Your task to perform on an android device: set default search engine in the chrome app Image 0: 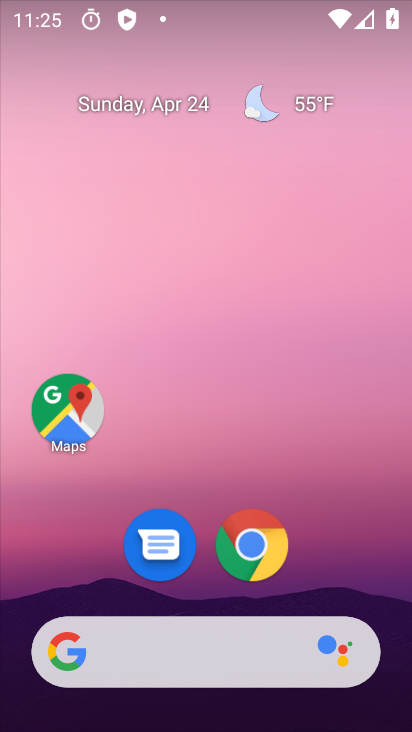
Step 0: drag from (312, 591) to (254, 202)
Your task to perform on an android device: set default search engine in the chrome app Image 1: 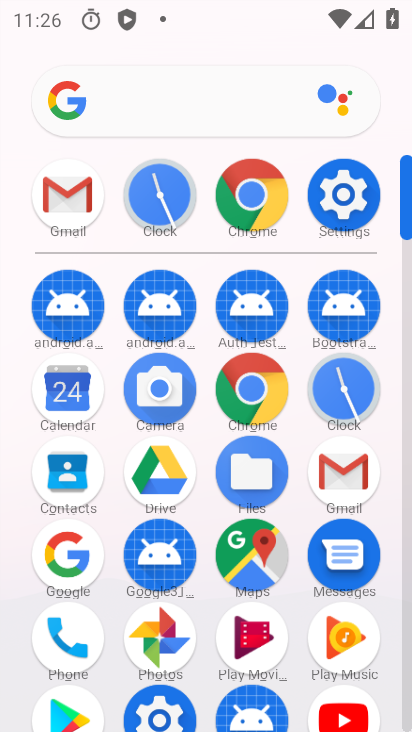
Step 1: click (255, 194)
Your task to perform on an android device: set default search engine in the chrome app Image 2: 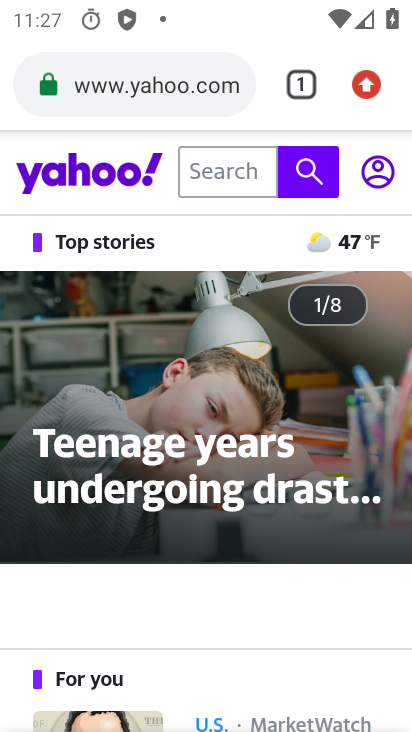
Step 2: click (366, 75)
Your task to perform on an android device: set default search engine in the chrome app Image 3: 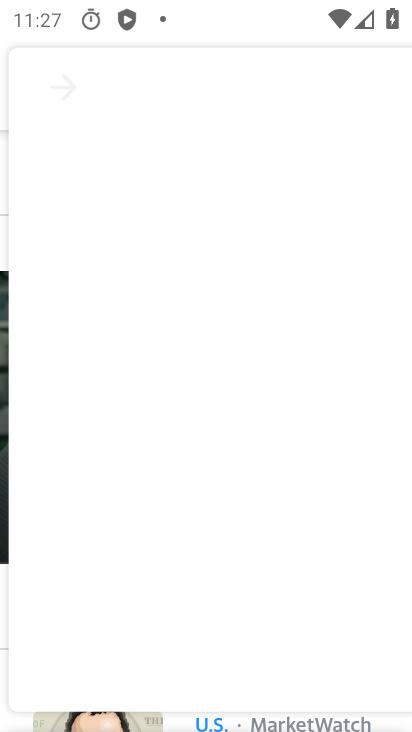
Step 3: click (367, 86)
Your task to perform on an android device: set default search engine in the chrome app Image 4: 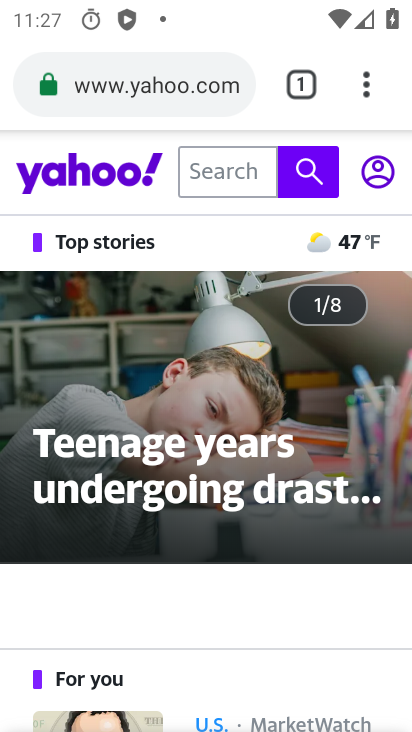
Step 4: click (363, 87)
Your task to perform on an android device: set default search engine in the chrome app Image 5: 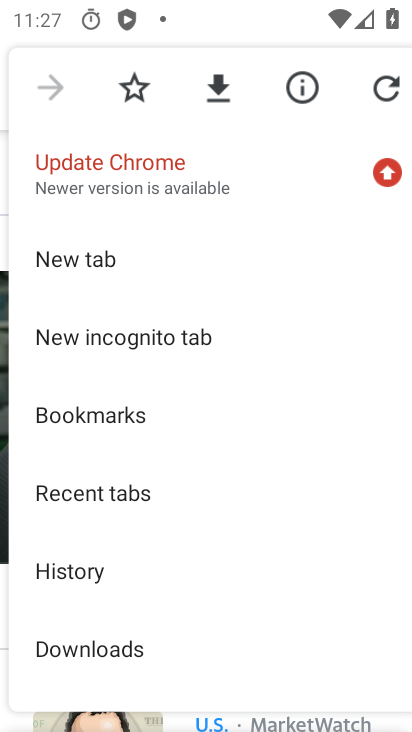
Step 5: drag from (146, 605) to (276, 346)
Your task to perform on an android device: set default search engine in the chrome app Image 6: 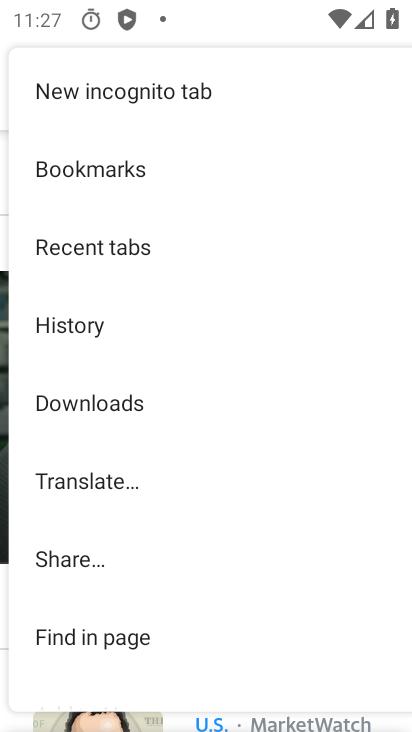
Step 6: drag from (168, 543) to (186, 391)
Your task to perform on an android device: set default search engine in the chrome app Image 7: 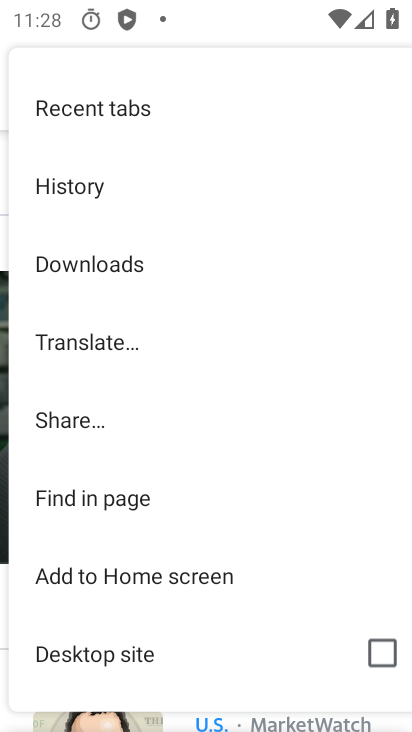
Step 7: drag from (139, 623) to (183, 455)
Your task to perform on an android device: set default search engine in the chrome app Image 8: 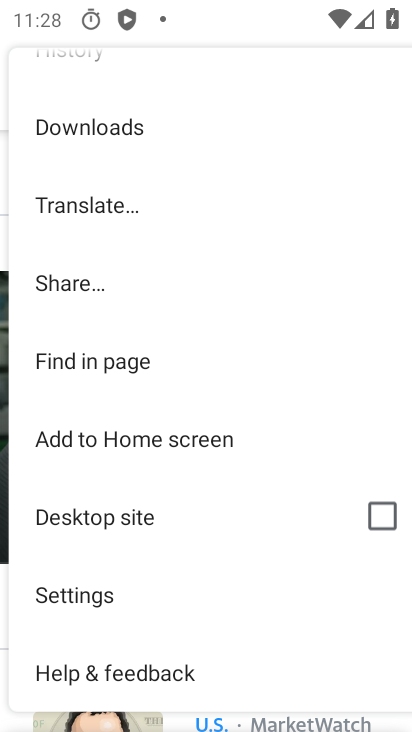
Step 8: click (94, 588)
Your task to perform on an android device: set default search engine in the chrome app Image 9: 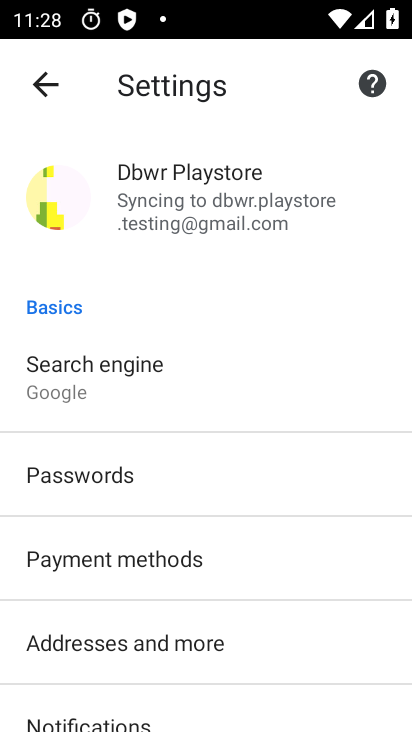
Step 9: drag from (183, 613) to (222, 413)
Your task to perform on an android device: set default search engine in the chrome app Image 10: 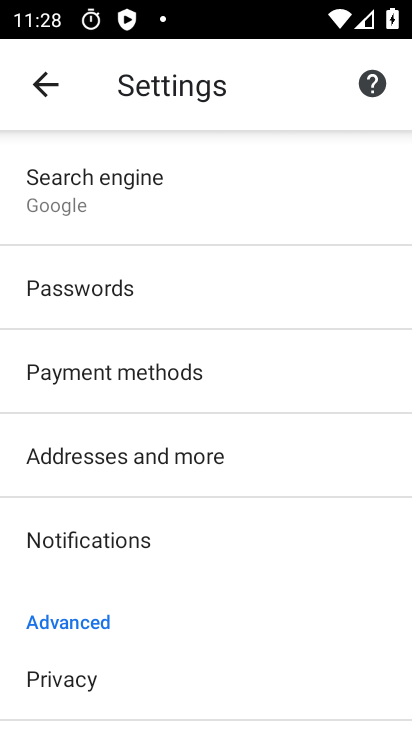
Step 10: drag from (218, 567) to (257, 327)
Your task to perform on an android device: set default search engine in the chrome app Image 11: 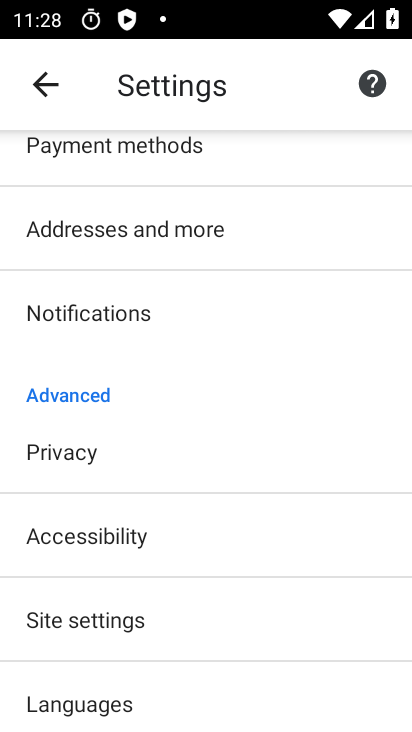
Step 11: drag from (235, 229) to (173, 731)
Your task to perform on an android device: set default search engine in the chrome app Image 12: 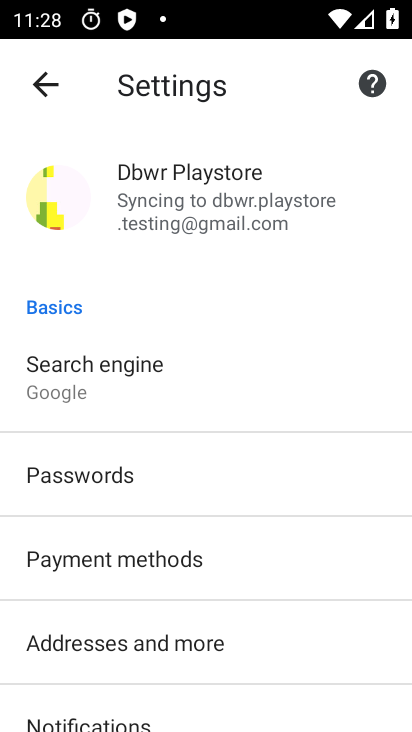
Step 12: click (122, 365)
Your task to perform on an android device: set default search engine in the chrome app Image 13: 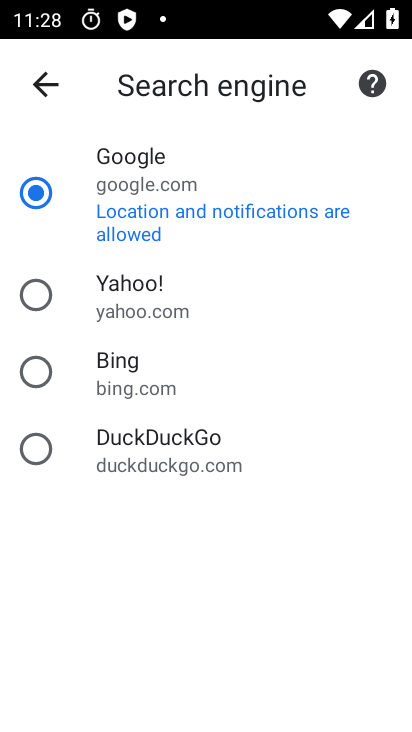
Step 13: task complete